Your task to perform on an android device: delete browsing data in the chrome app Image 0: 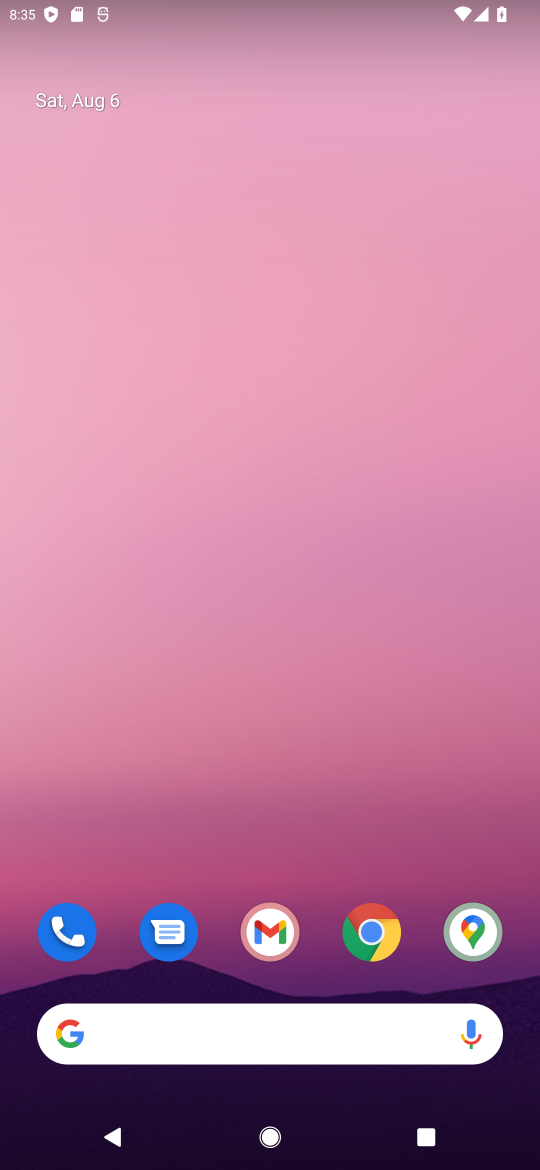
Step 0: click (371, 935)
Your task to perform on an android device: delete browsing data in the chrome app Image 1: 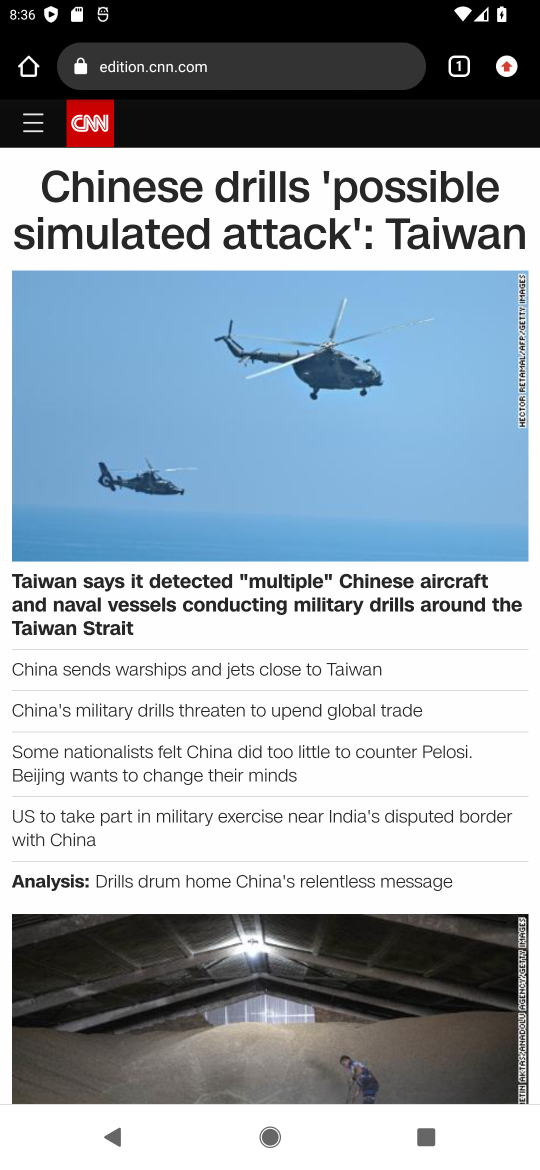
Step 1: click (508, 69)
Your task to perform on an android device: delete browsing data in the chrome app Image 2: 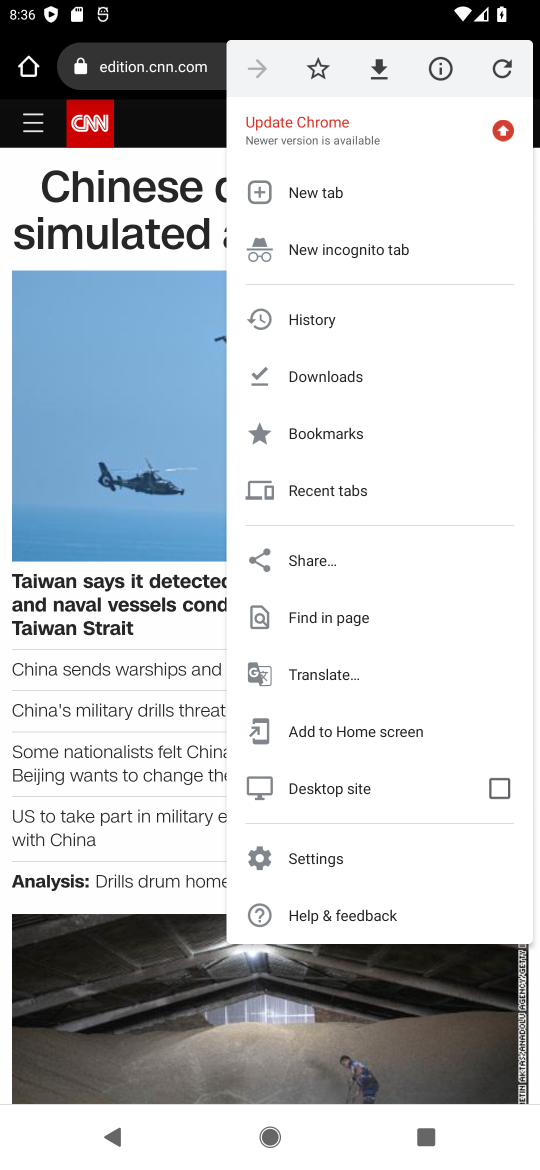
Step 2: click (326, 854)
Your task to perform on an android device: delete browsing data in the chrome app Image 3: 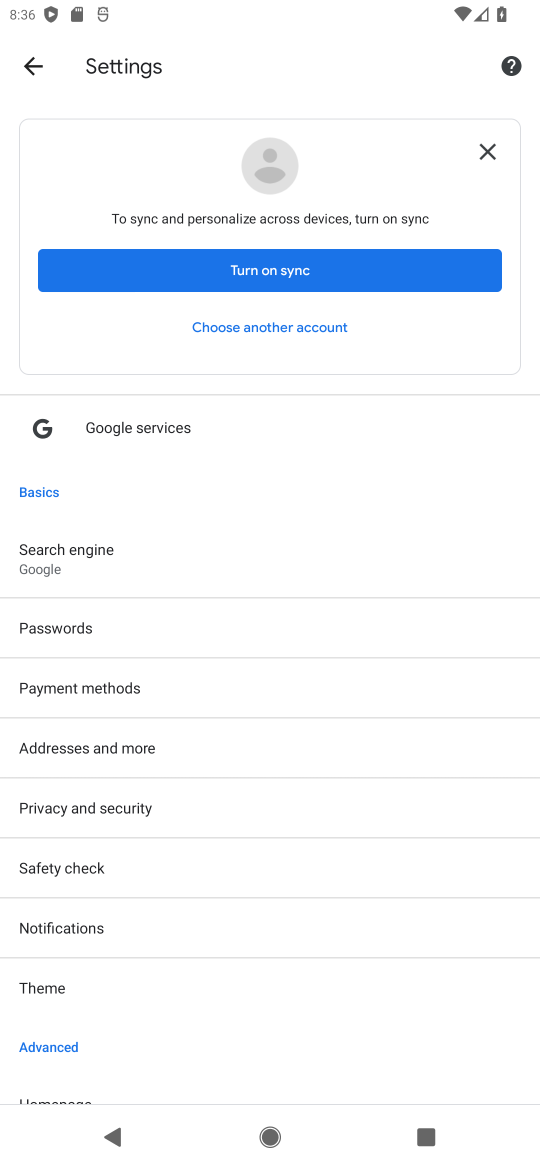
Step 3: click (113, 808)
Your task to perform on an android device: delete browsing data in the chrome app Image 4: 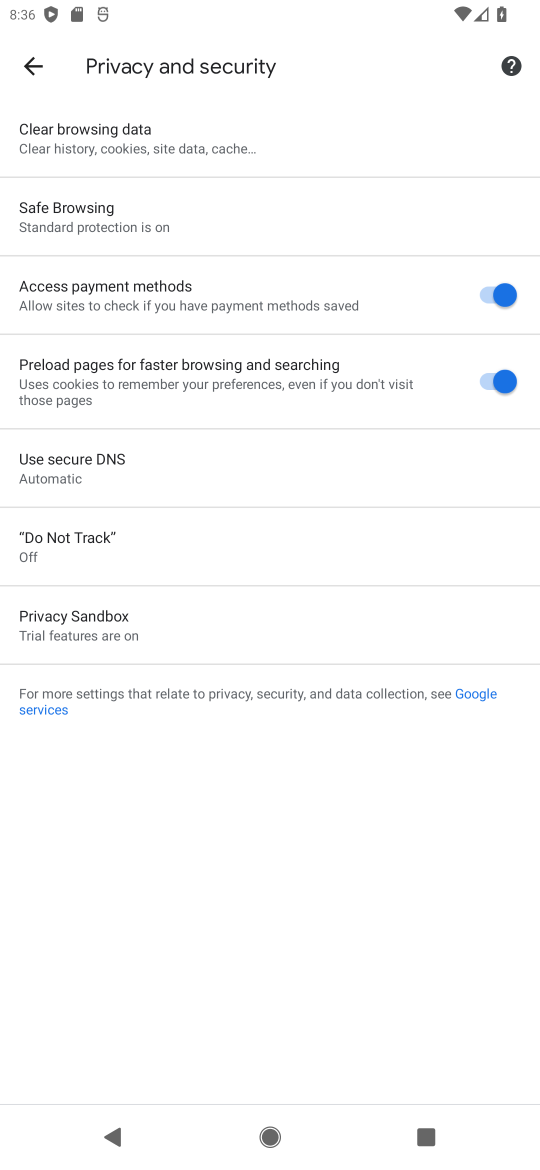
Step 4: click (172, 148)
Your task to perform on an android device: delete browsing data in the chrome app Image 5: 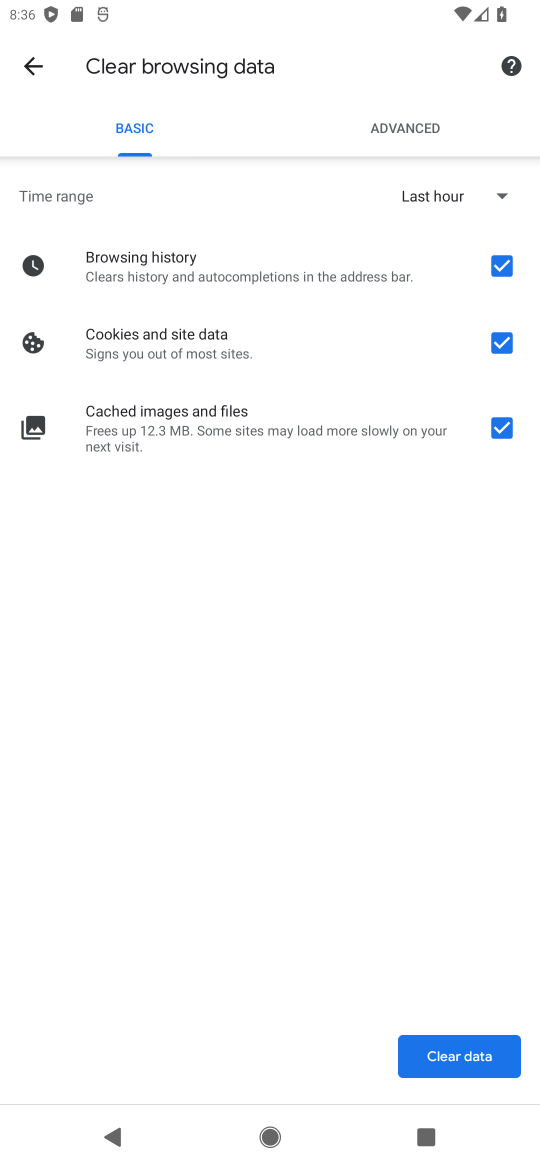
Step 5: click (456, 1063)
Your task to perform on an android device: delete browsing data in the chrome app Image 6: 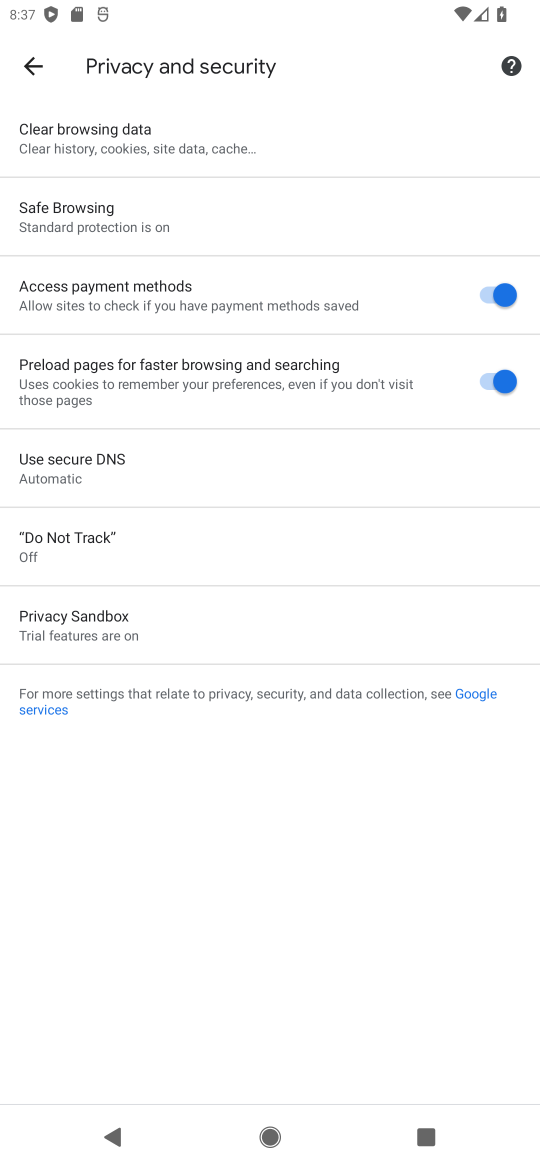
Step 6: task complete